Your task to perform on an android device: open the mobile data screen to see how much data has been used Image 0: 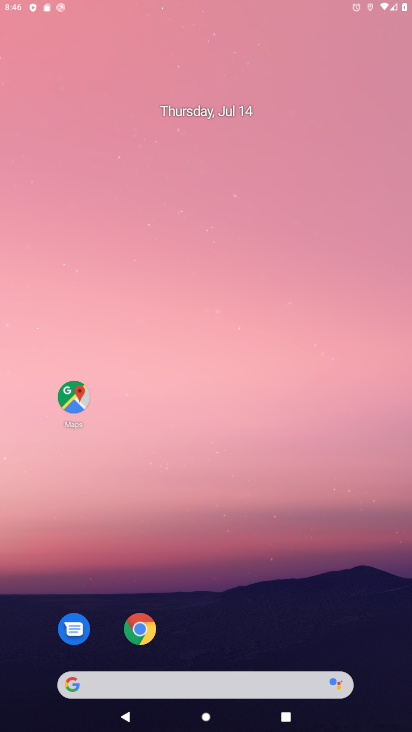
Step 0: press home button
Your task to perform on an android device: open the mobile data screen to see how much data has been used Image 1: 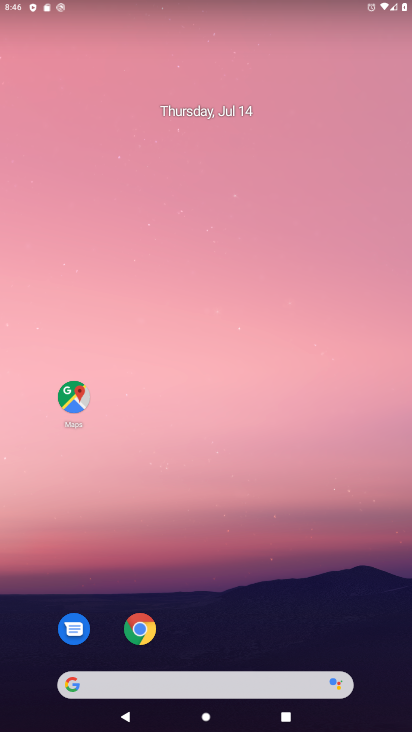
Step 1: drag from (227, 609) to (269, 17)
Your task to perform on an android device: open the mobile data screen to see how much data has been used Image 2: 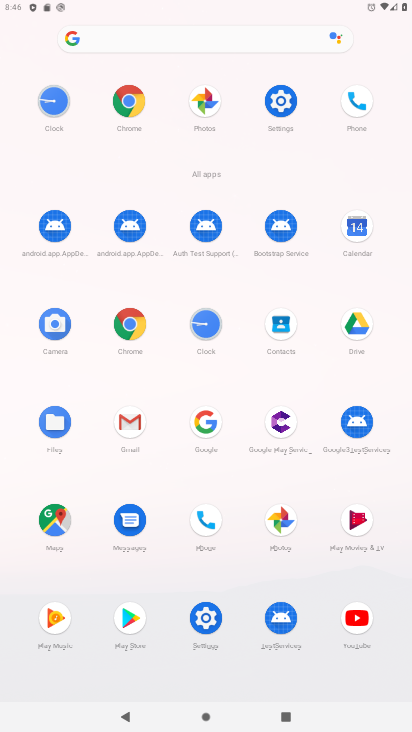
Step 2: click (275, 104)
Your task to perform on an android device: open the mobile data screen to see how much data has been used Image 3: 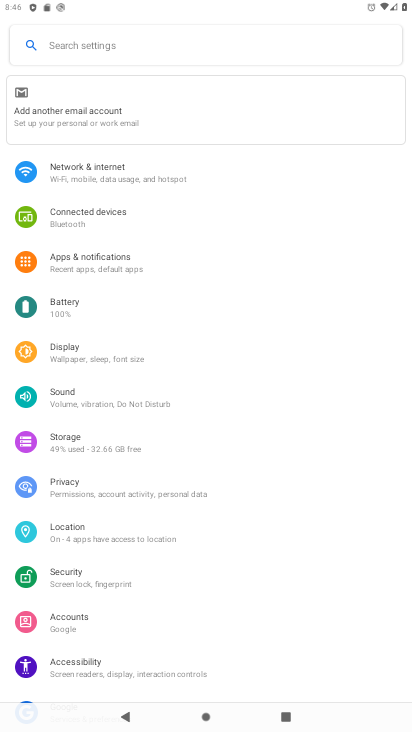
Step 3: click (107, 165)
Your task to perform on an android device: open the mobile data screen to see how much data has been used Image 4: 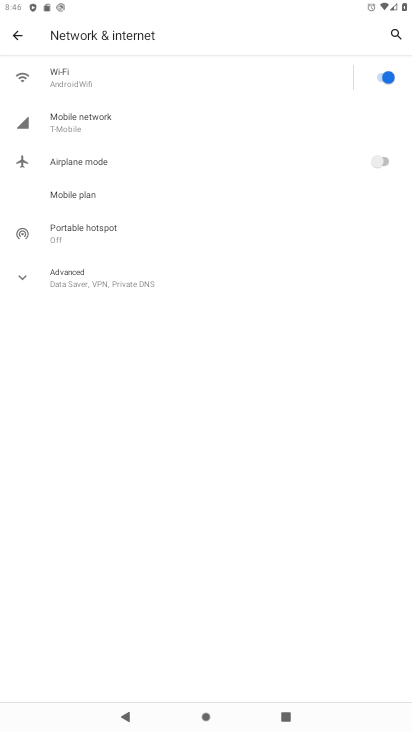
Step 4: click (81, 117)
Your task to perform on an android device: open the mobile data screen to see how much data has been used Image 5: 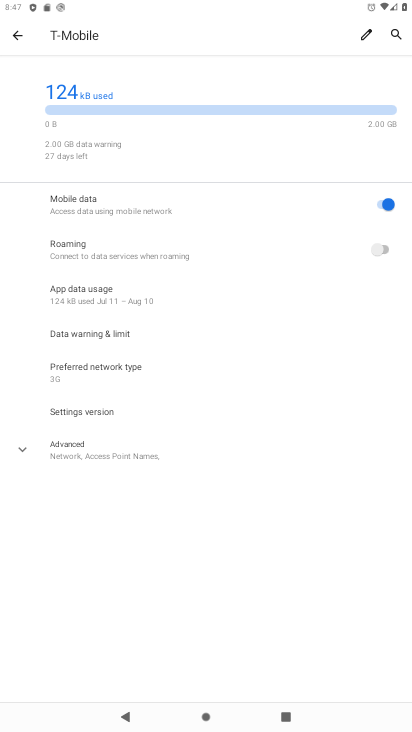
Step 5: click (91, 294)
Your task to perform on an android device: open the mobile data screen to see how much data has been used Image 6: 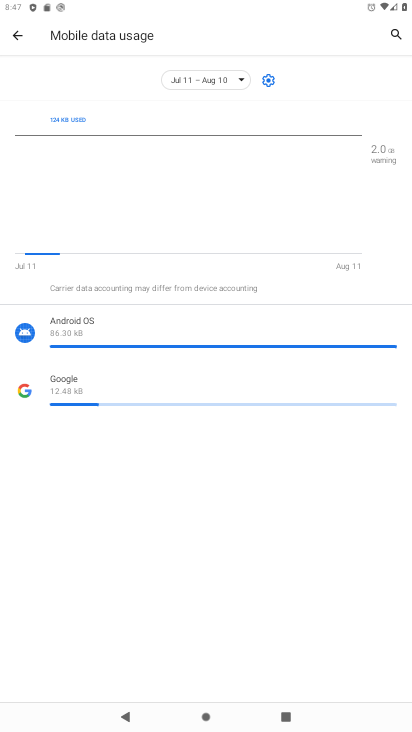
Step 6: task complete